Your task to perform on an android device: Open Google Maps and go to "Timeline" Image 0: 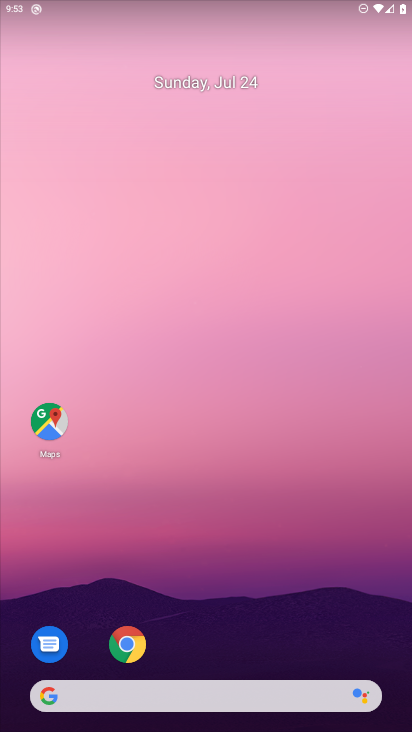
Step 0: press home button
Your task to perform on an android device: Open Google Maps and go to "Timeline" Image 1: 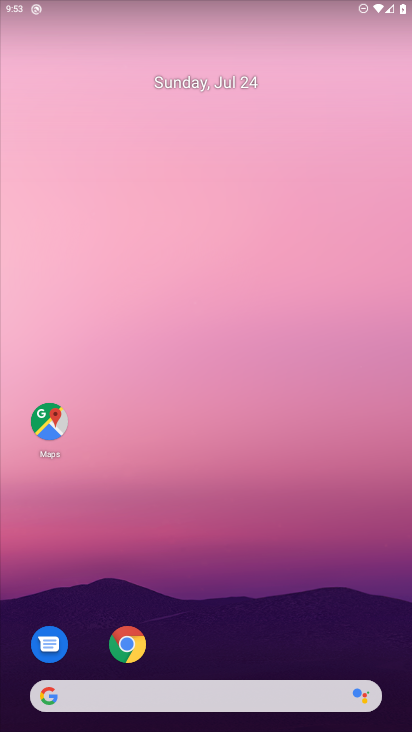
Step 1: drag from (262, 634) to (298, 11)
Your task to perform on an android device: Open Google Maps and go to "Timeline" Image 2: 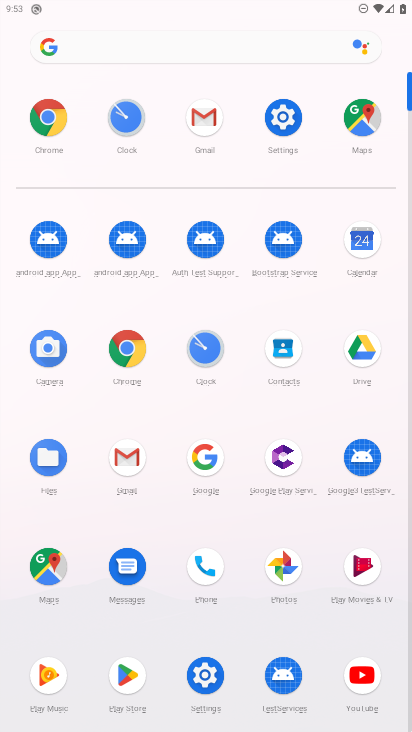
Step 2: click (65, 573)
Your task to perform on an android device: Open Google Maps and go to "Timeline" Image 3: 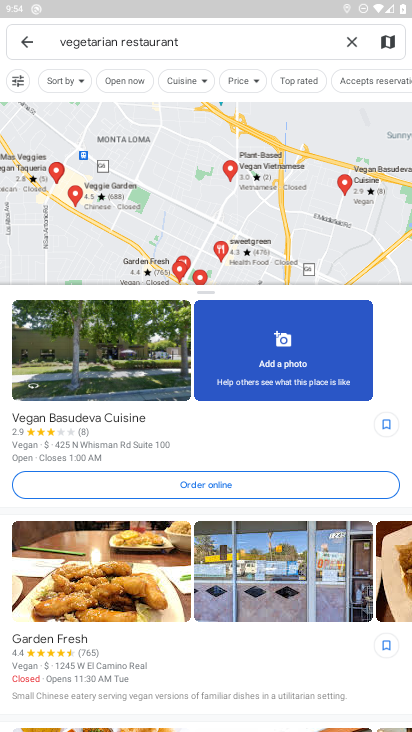
Step 3: click (31, 38)
Your task to perform on an android device: Open Google Maps and go to "Timeline" Image 4: 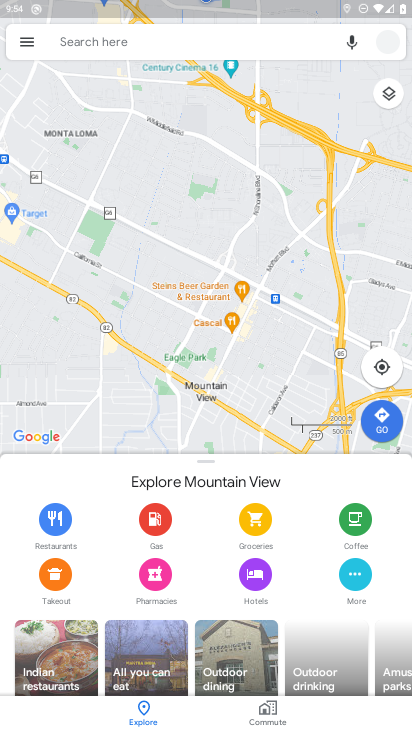
Step 4: click (31, 38)
Your task to perform on an android device: Open Google Maps and go to "Timeline" Image 5: 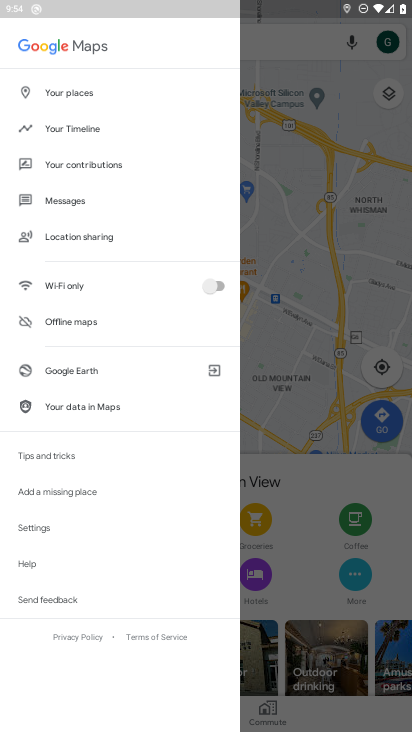
Step 5: click (69, 136)
Your task to perform on an android device: Open Google Maps and go to "Timeline" Image 6: 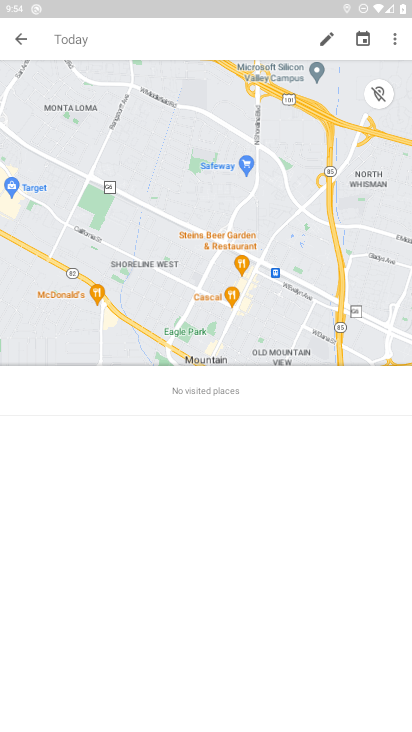
Step 6: task complete